Your task to perform on an android device: Do I have any events today? Image 0: 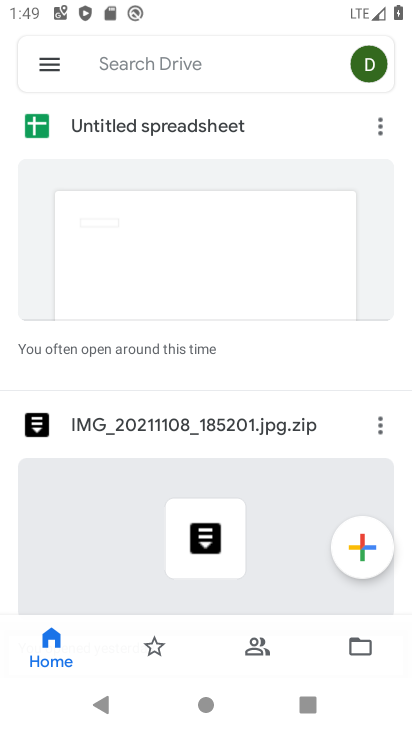
Step 0: press home button
Your task to perform on an android device: Do I have any events today? Image 1: 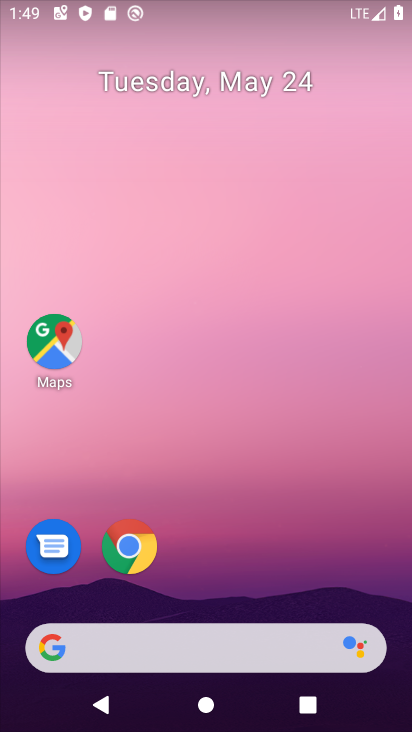
Step 1: drag from (200, 590) to (266, 220)
Your task to perform on an android device: Do I have any events today? Image 2: 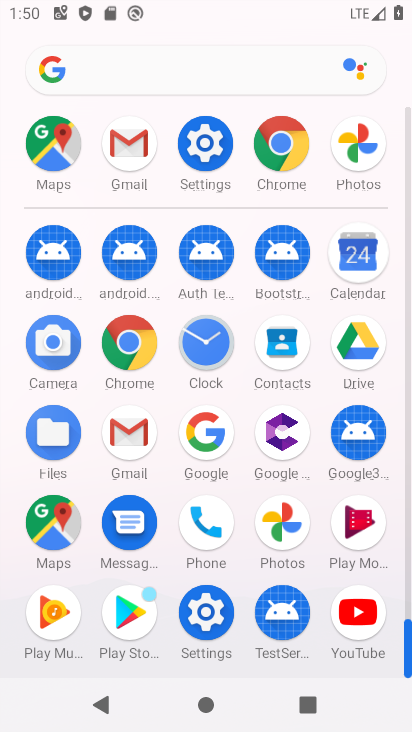
Step 2: click (348, 254)
Your task to perform on an android device: Do I have any events today? Image 3: 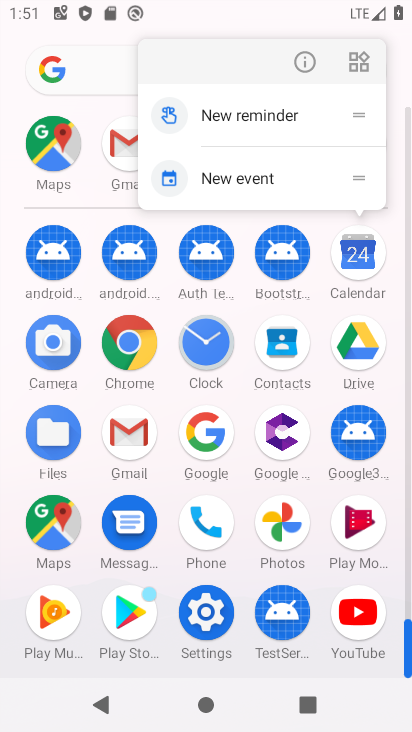
Step 3: click (360, 272)
Your task to perform on an android device: Do I have any events today? Image 4: 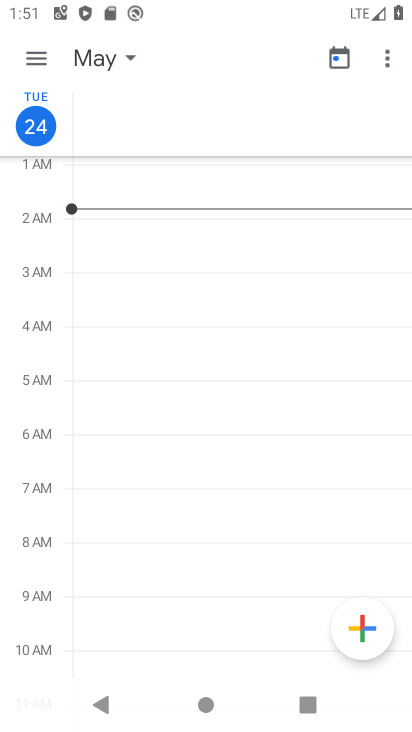
Step 4: click (106, 64)
Your task to perform on an android device: Do I have any events today? Image 5: 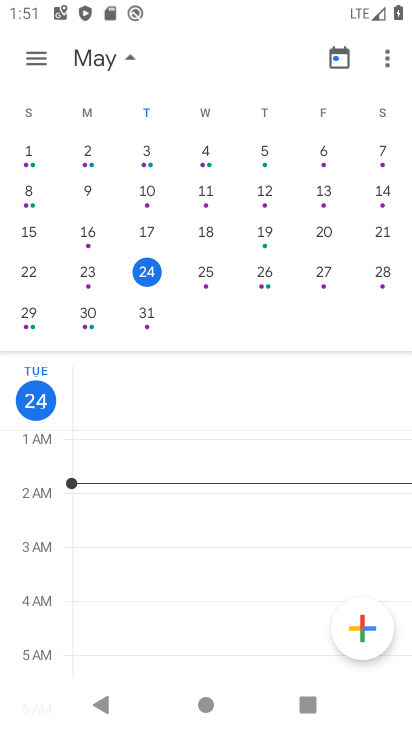
Step 5: click (142, 284)
Your task to perform on an android device: Do I have any events today? Image 6: 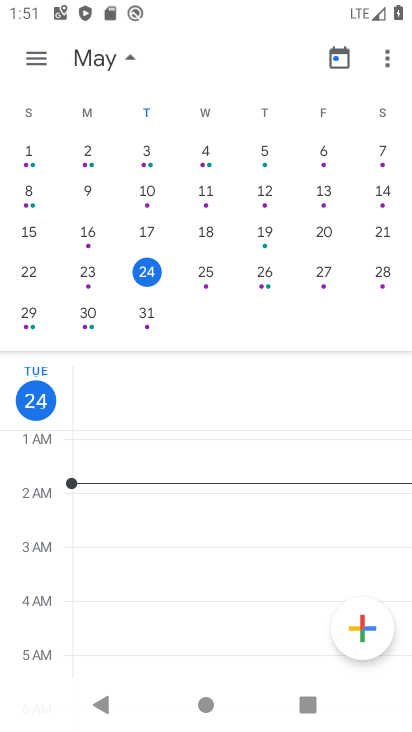
Step 6: task complete